Your task to perform on an android device: turn on bluetooth scan Image 0: 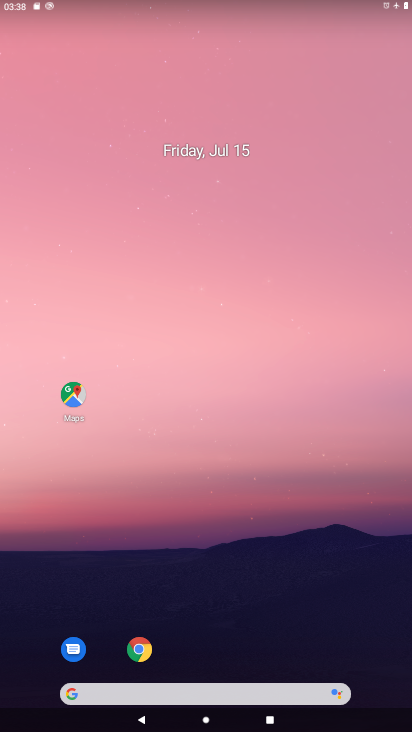
Step 0: drag from (364, 543) to (348, 30)
Your task to perform on an android device: turn on bluetooth scan Image 1: 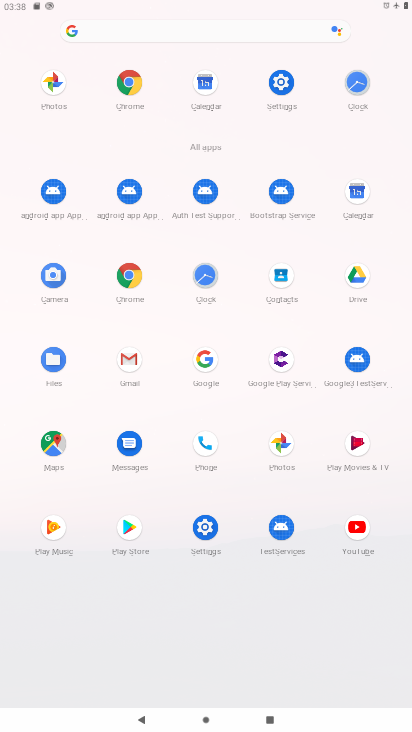
Step 1: click (205, 527)
Your task to perform on an android device: turn on bluetooth scan Image 2: 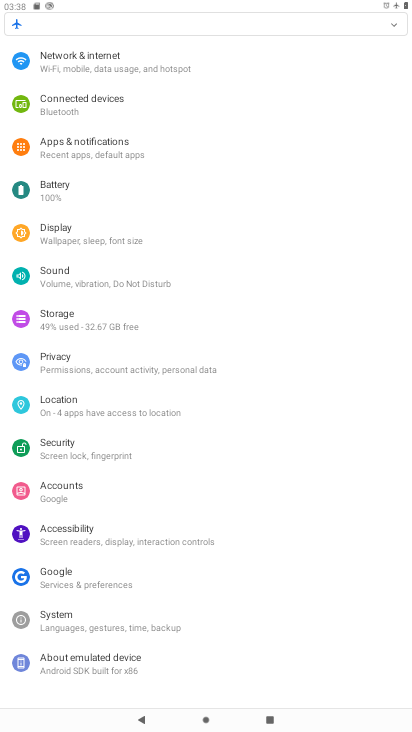
Step 2: click (60, 392)
Your task to perform on an android device: turn on bluetooth scan Image 3: 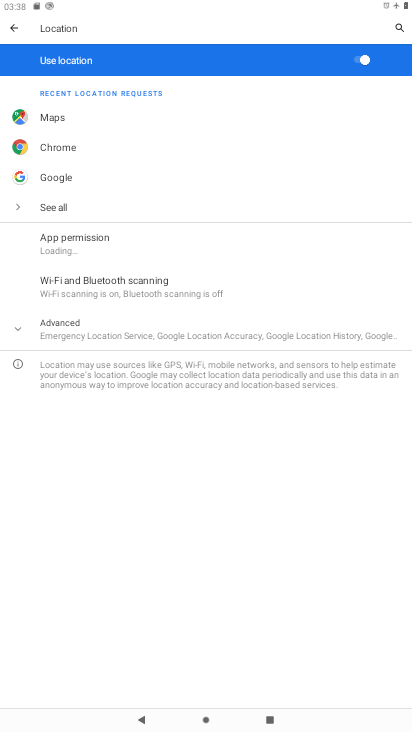
Step 3: click (13, 330)
Your task to perform on an android device: turn on bluetooth scan Image 4: 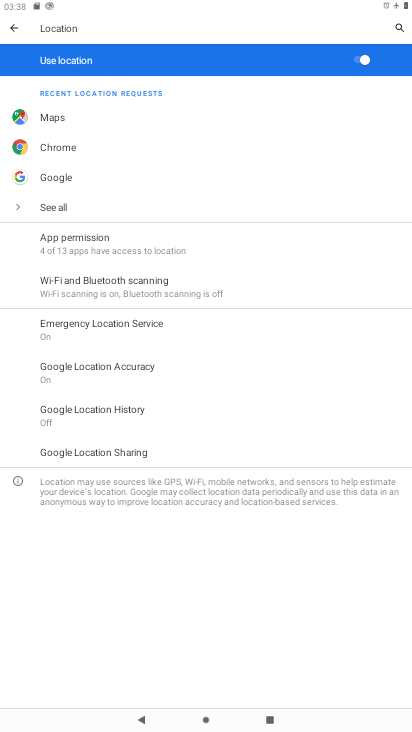
Step 4: click (96, 278)
Your task to perform on an android device: turn on bluetooth scan Image 5: 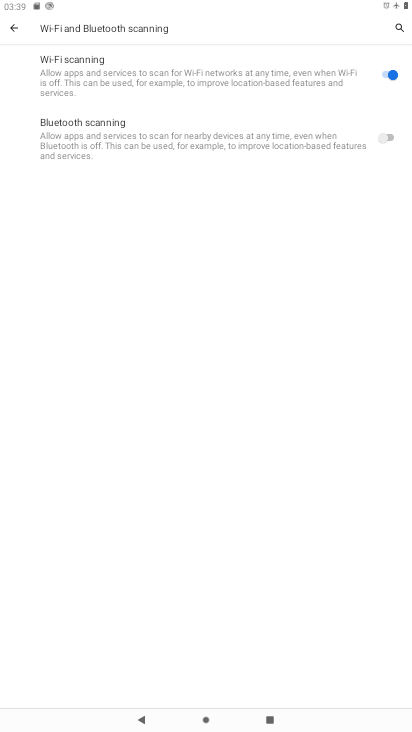
Step 5: click (387, 132)
Your task to perform on an android device: turn on bluetooth scan Image 6: 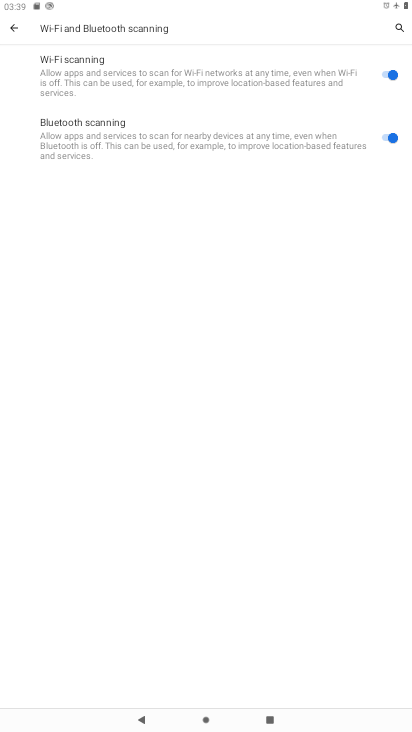
Step 6: task complete